Your task to perform on an android device: What's the weather going to be tomorrow? Image 0: 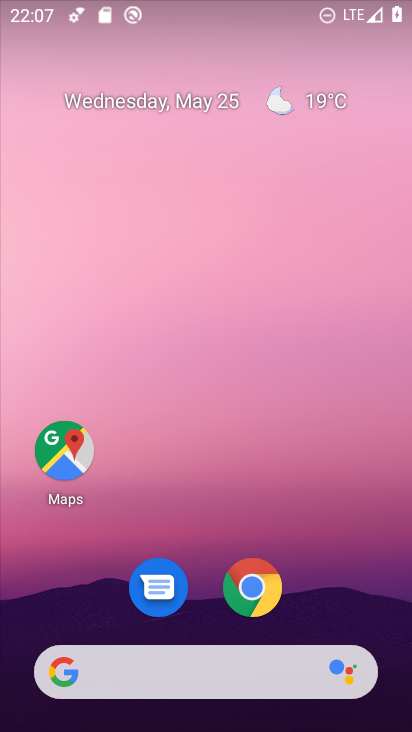
Step 0: click (317, 100)
Your task to perform on an android device: What's the weather going to be tomorrow? Image 1: 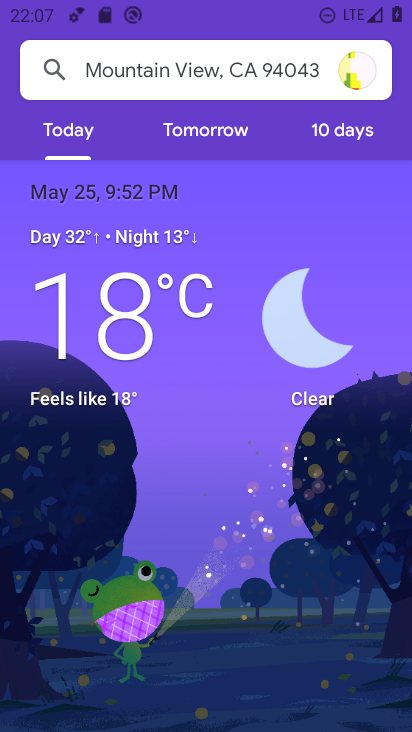
Step 1: click (185, 138)
Your task to perform on an android device: What's the weather going to be tomorrow? Image 2: 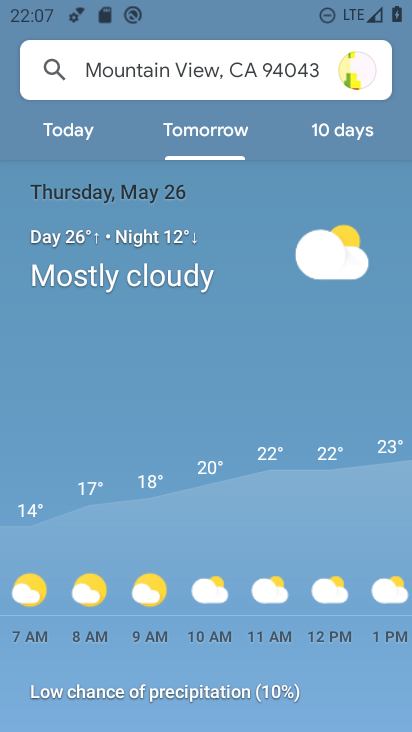
Step 2: drag from (316, 596) to (292, 395)
Your task to perform on an android device: What's the weather going to be tomorrow? Image 3: 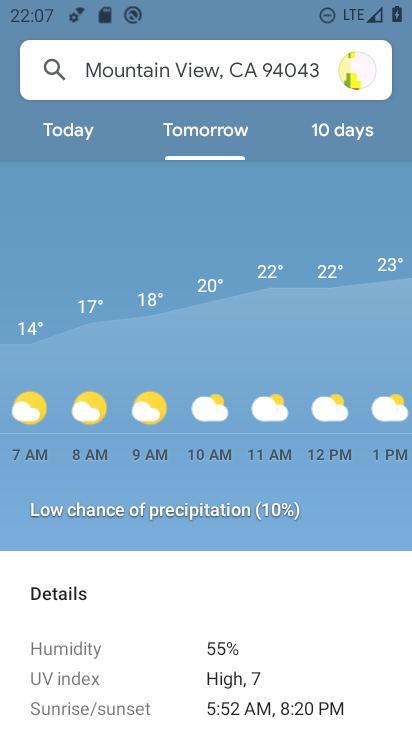
Step 3: drag from (382, 409) to (218, 409)
Your task to perform on an android device: What's the weather going to be tomorrow? Image 4: 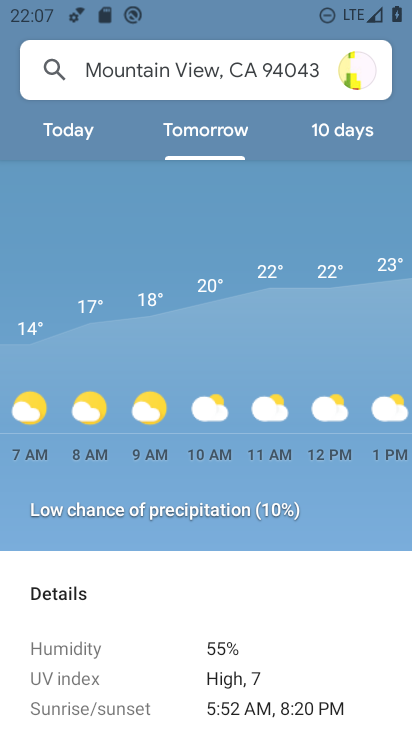
Step 4: click (394, 420)
Your task to perform on an android device: What's the weather going to be tomorrow? Image 5: 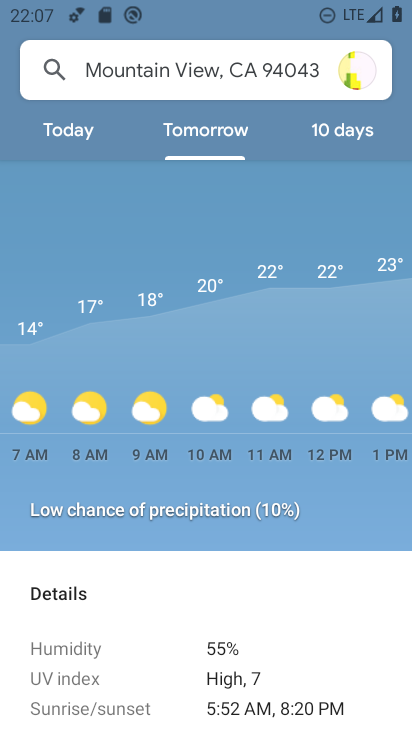
Step 5: task complete